Your task to perform on an android device: Open internet settings Image 0: 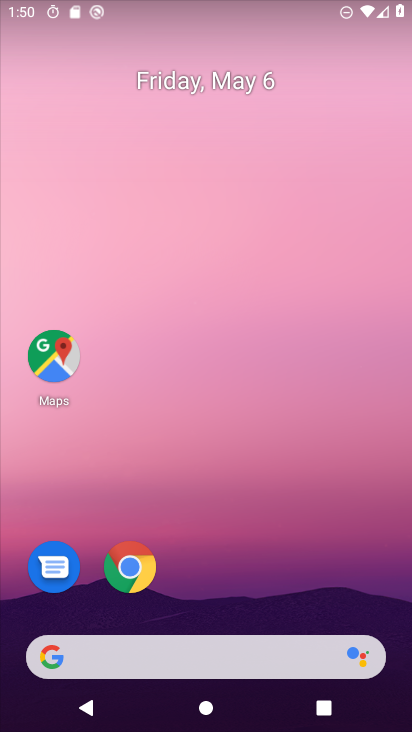
Step 0: drag from (289, 678) to (206, 161)
Your task to perform on an android device: Open internet settings Image 1: 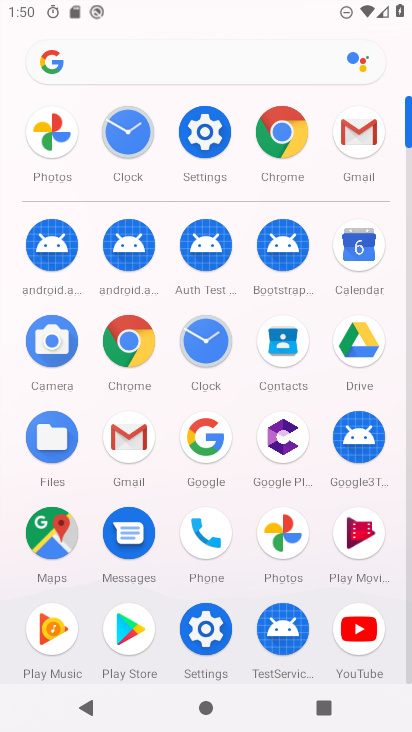
Step 1: click (201, 144)
Your task to perform on an android device: Open internet settings Image 2: 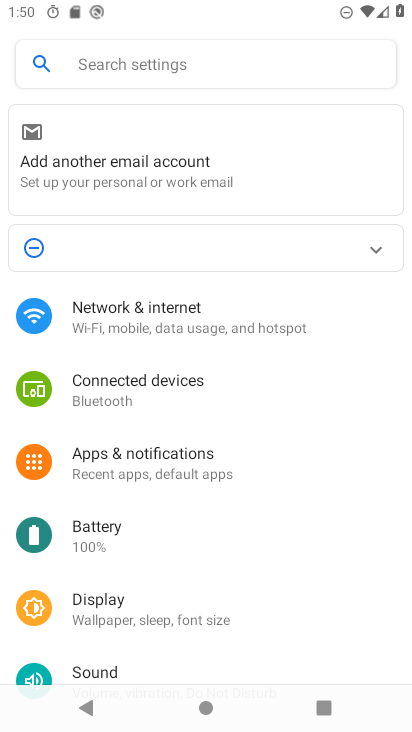
Step 2: click (133, 308)
Your task to perform on an android device: Open internet settings Image 3: 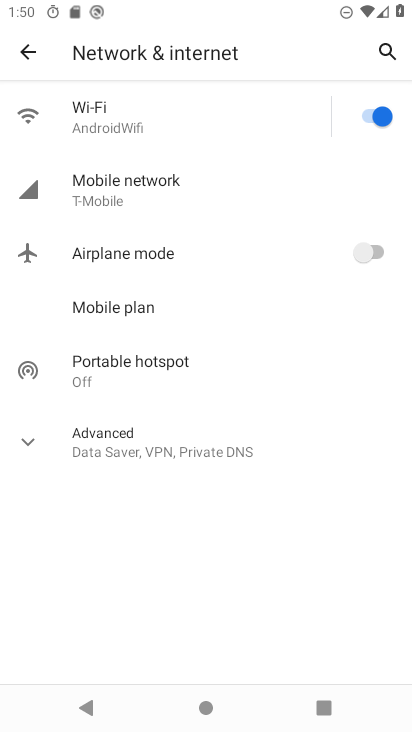
Step 3: task complete